Your task to perform on an android device: open chrome and create a bookmark for the current page Image 0: 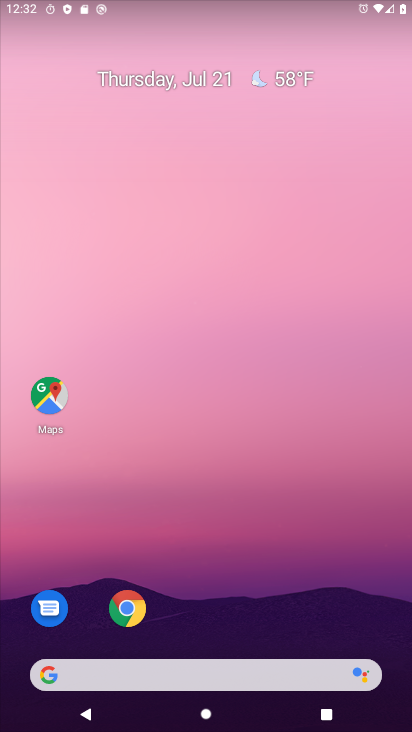
Step 0: press home button
Your task to perform on an android device: open chrome and create a bookmark for the current page Image 1: 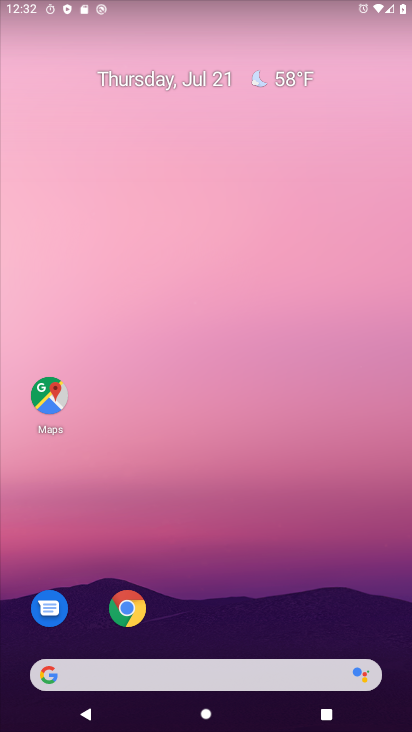
Step 1: click (132, 602)
Your task to perform on an android device: open chrome and create a bookmark for the current page Image 2: 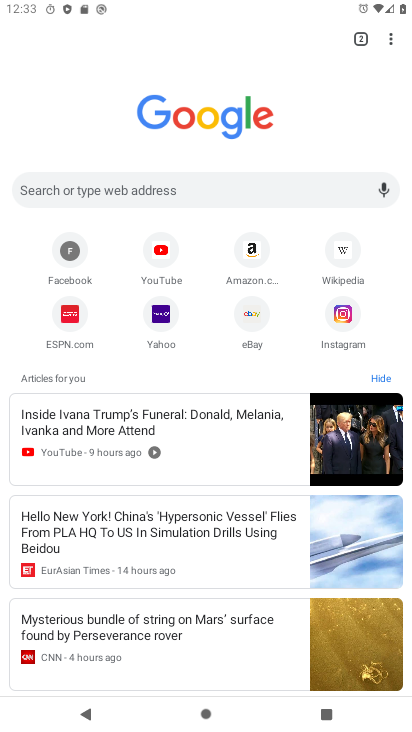
Step 2: click (385, 39)
Your task to perform on an android device: open chrome and create a bookmark for the current page Image 3: 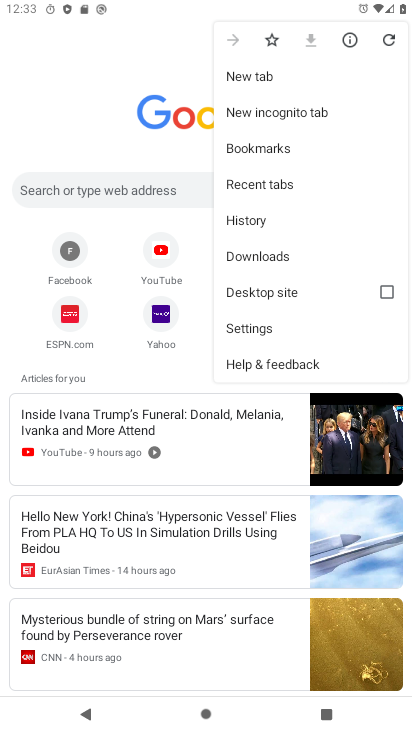
Step 3: click (262, 41)
Your task to perform on an android device: open chrome and create a bookmark for the current page Image 4: 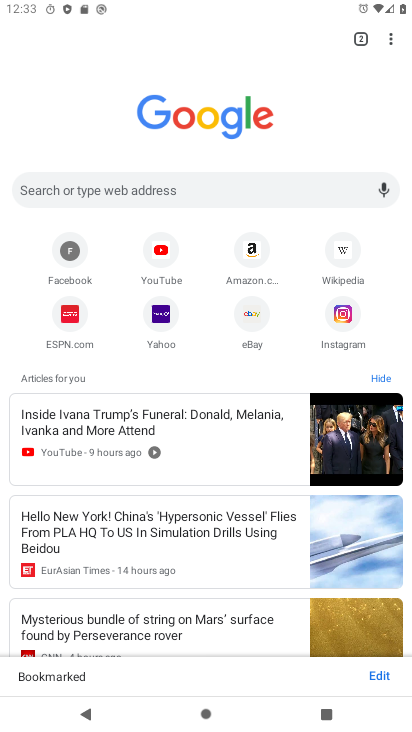
Step 4: task complete